Your task to perform on an android device: allow notifications from all sites in the chrome app Image 0: 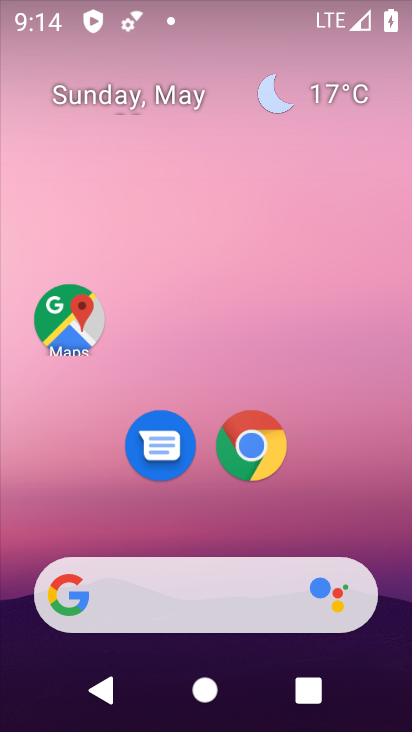
Step 0: drag from (216, 476) to (309, 105)
Your task to perform on an android device: allow notifications from all sites in the chrome app Image 1: 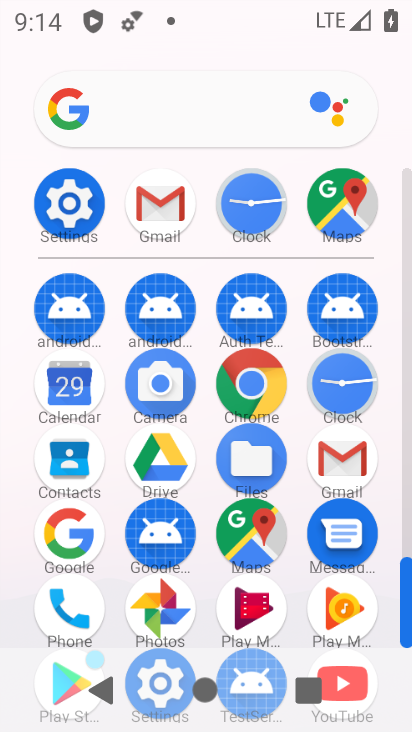
Step 1: click (249, 381)
Your task to perform on an android device: allow notifications from all sites in the chrome app Image 2: 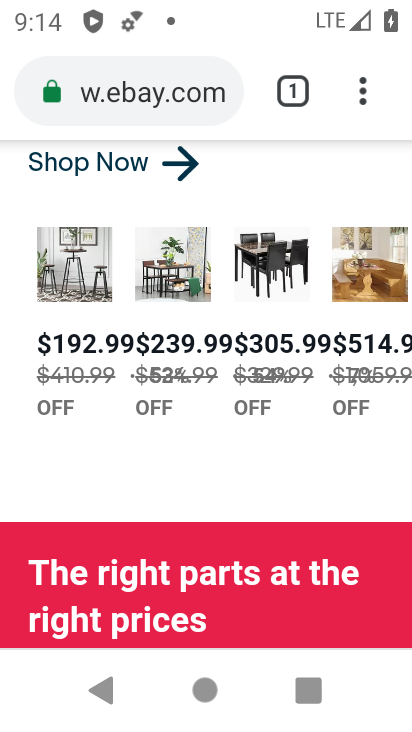
Step 2: drag from (224, 223) to (277, 726)
Your task to perform on an android device: allow notifications from all sites in the chrome app Image 3: 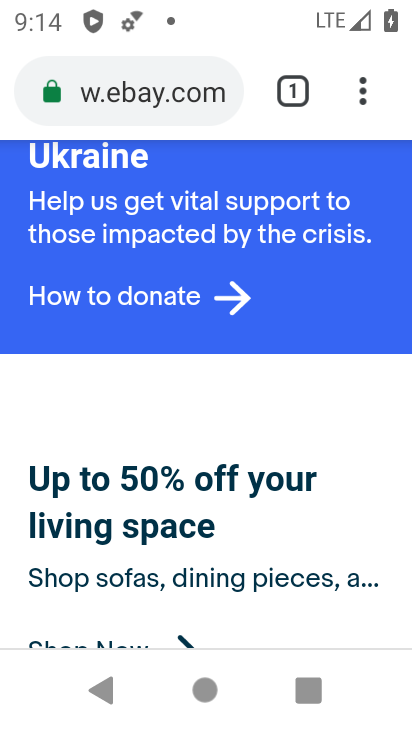
Step 3: drag from (366, 79) to (118, 463)
Your task to perform on an android device: allow notifications from all sites in the chrome app Image 4: 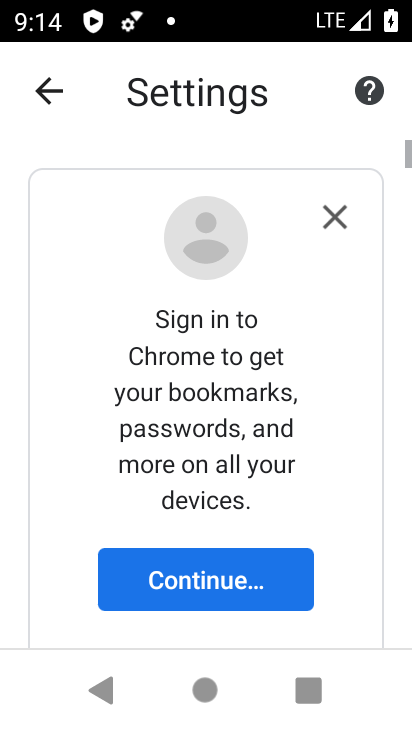
Step 4: drag from (200, 452) to (276, 12)
Your task to perform on an android device: allow notifications from all sites in the chrome app Image 5: 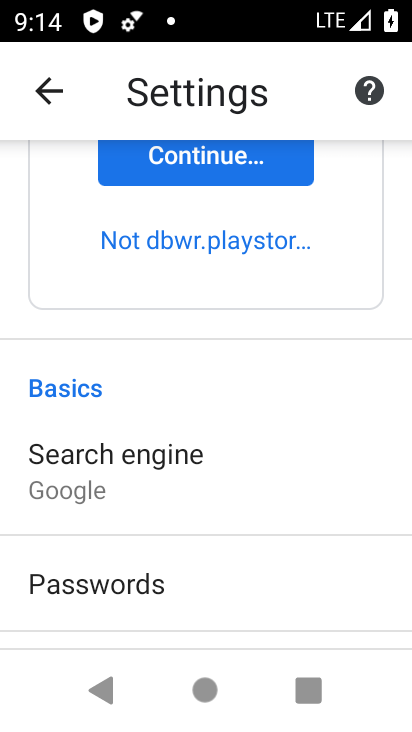
Step 5: drag from (136, 521) to (310, 2)
Your task to perform on an android device: allow notifications from all sites in the chrome app Image 6: 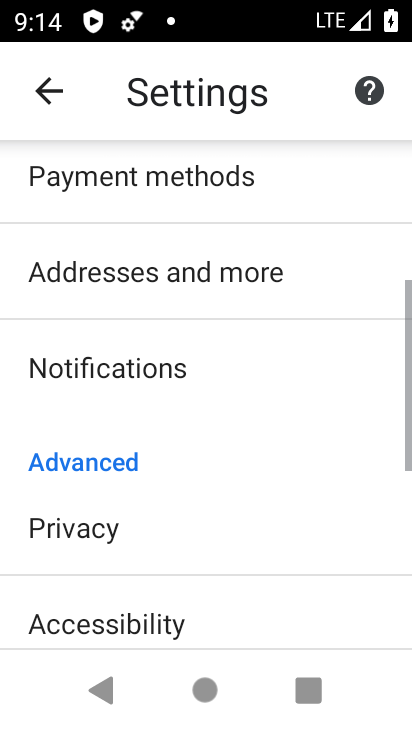
Step 6: drag from (161, 566) to (252, 142)
Your task to perform on an android device: allow notifications from all sites in the chrome app Image 7: 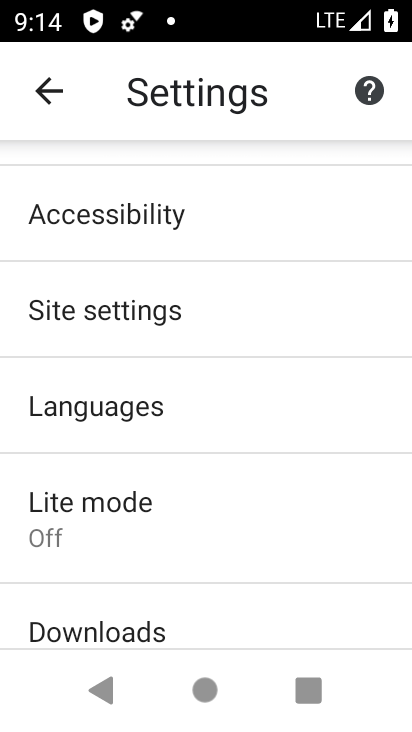
Step 7: click (176, 310)
Your task to perform on an android device: allow notifications from all sites in the chrome app Image 8: 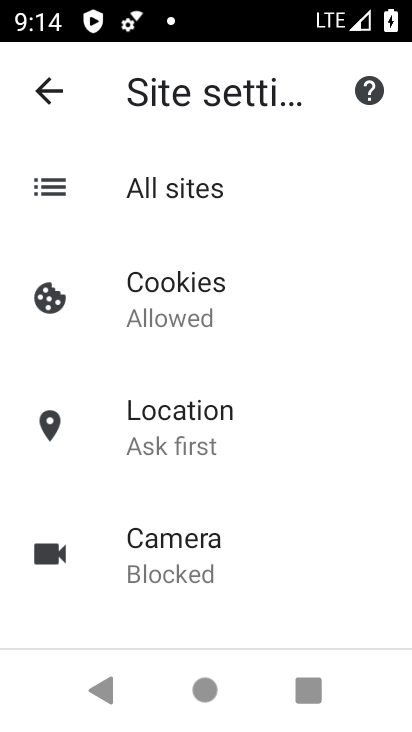
Step 8: drag from (174, 516) to (236, 89)
Your task to perform on an android device: allow notifications from all sites in the chrome app Image 9: 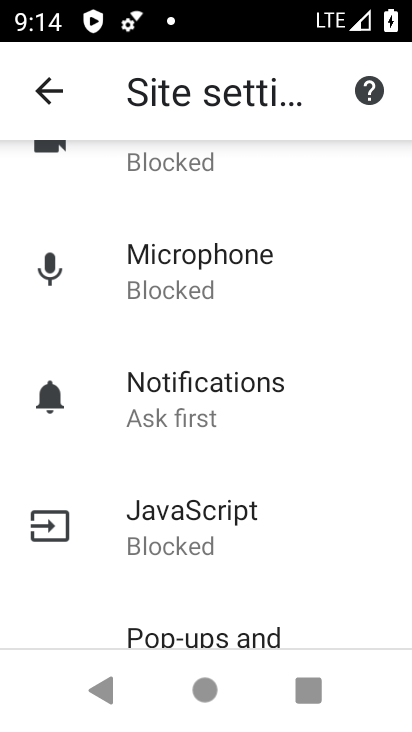
Step 9: click (191, 378)
Your task to perform on an android device: allow notifications from all sites in the chrome app Image 10: 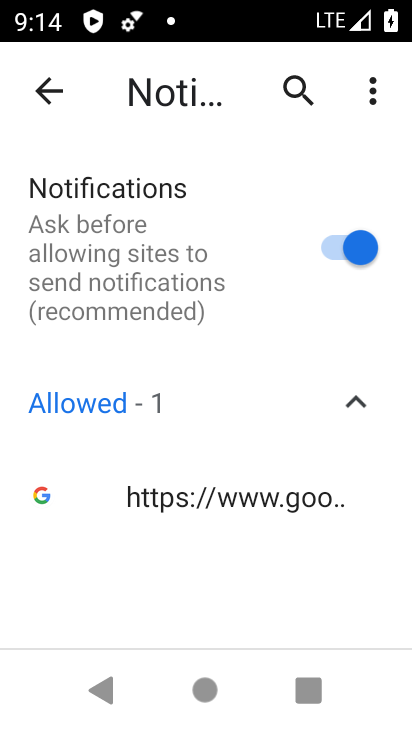
Step 10: task complete